Your task to perform on an android device: uninstall "Facebook Lite" Image 0: 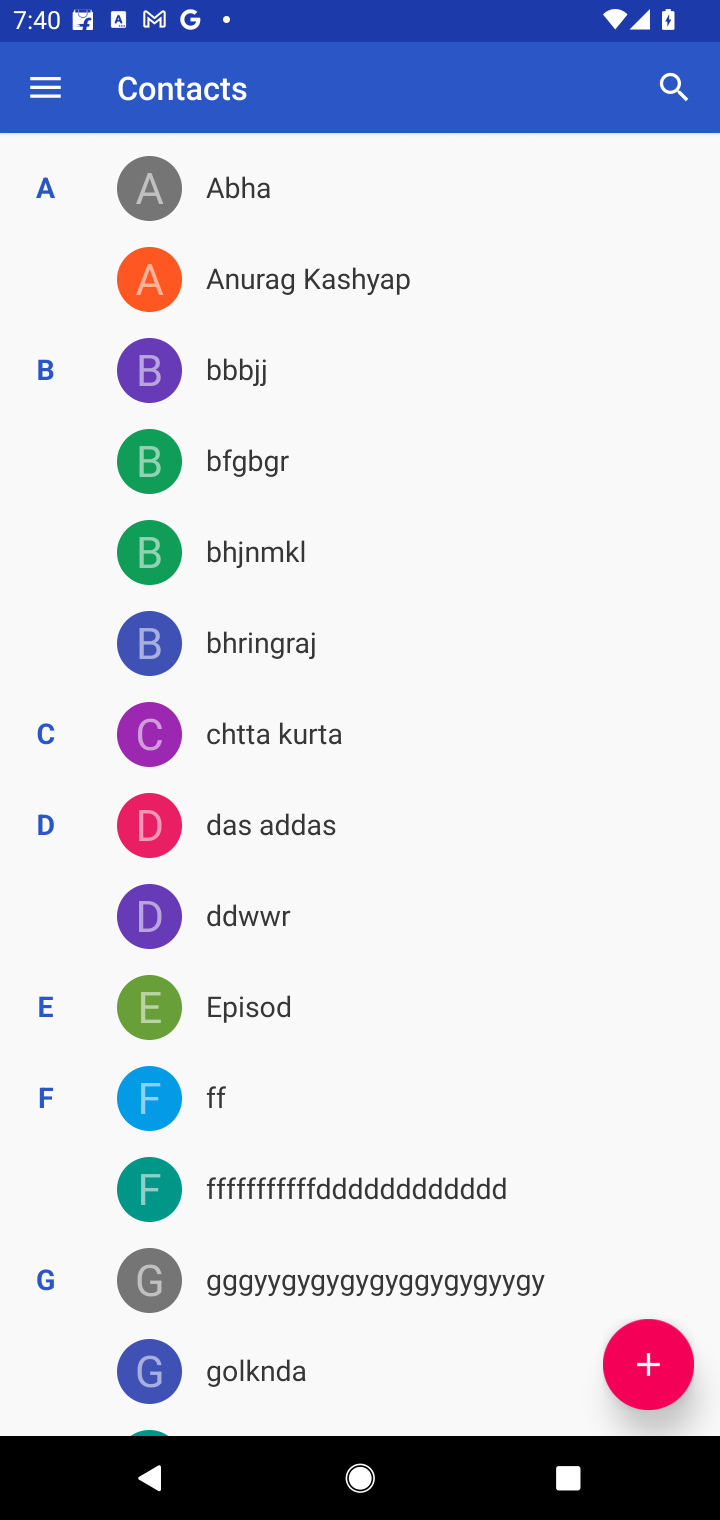
Step 0: press home button
Your task to perform on an android device: uninstall "Facebook Lite" Image 1: 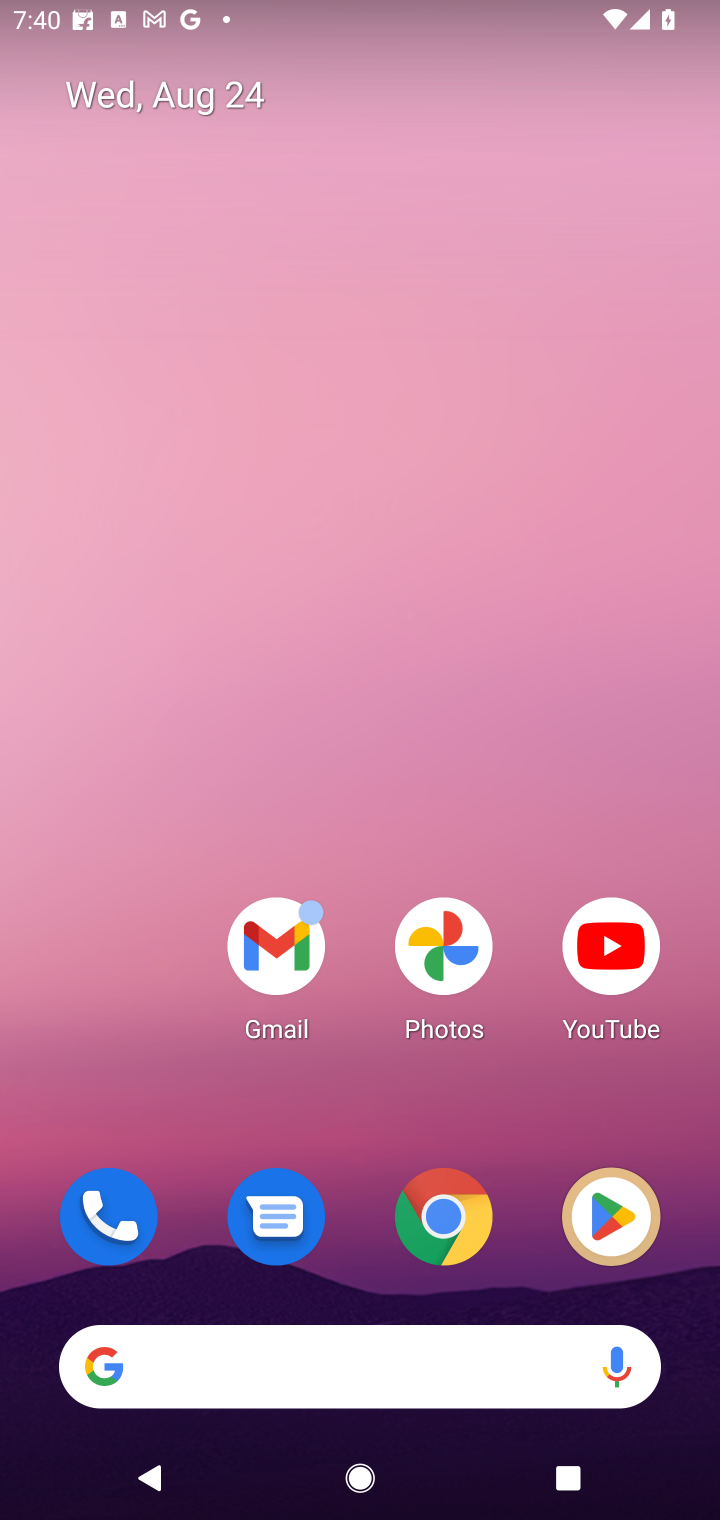
Step 1: click (542, 1232)
Your task to perform on an android device: uninstall "Facebook Lite" Image 2: 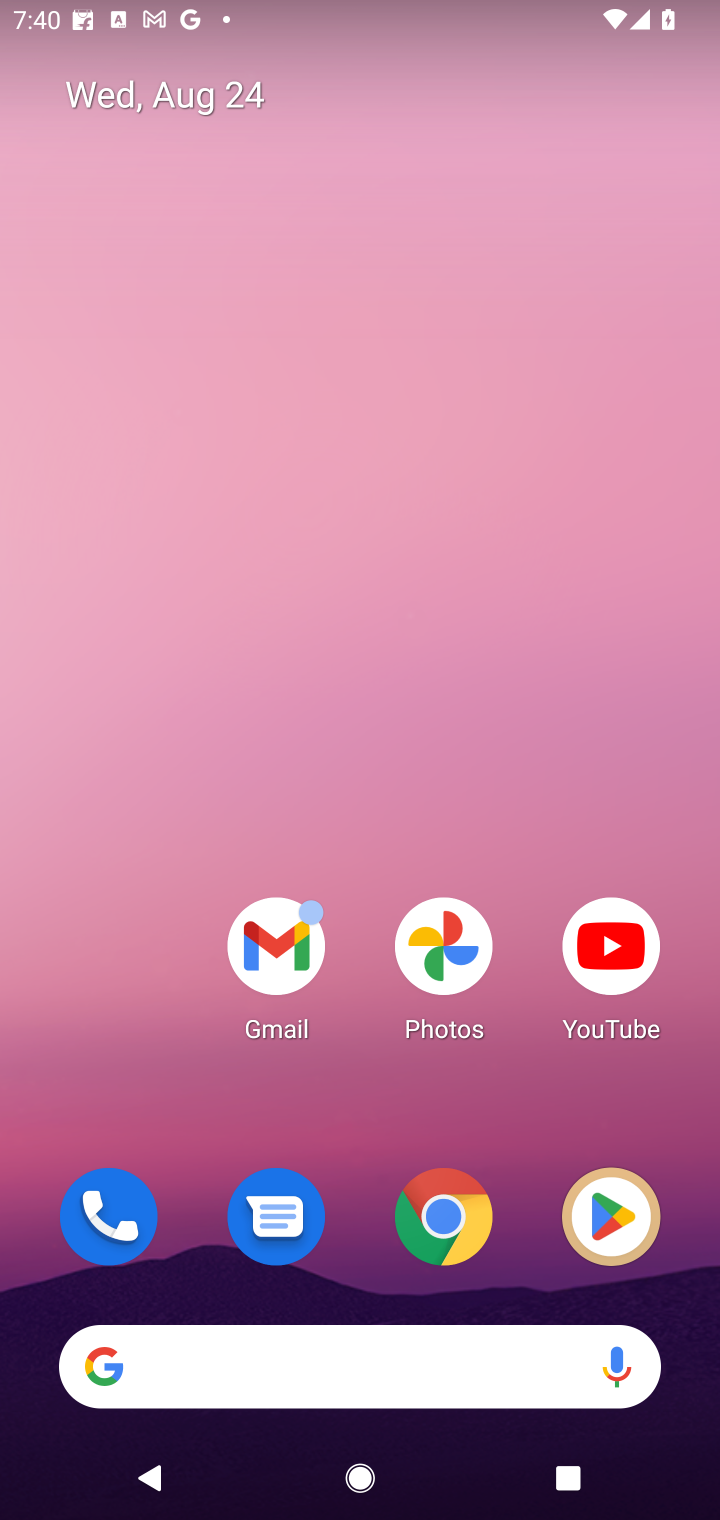
Step 2: click (608, 1184)
Your task to perform on an android device: uninstall "Facebook Lite" Image 3: 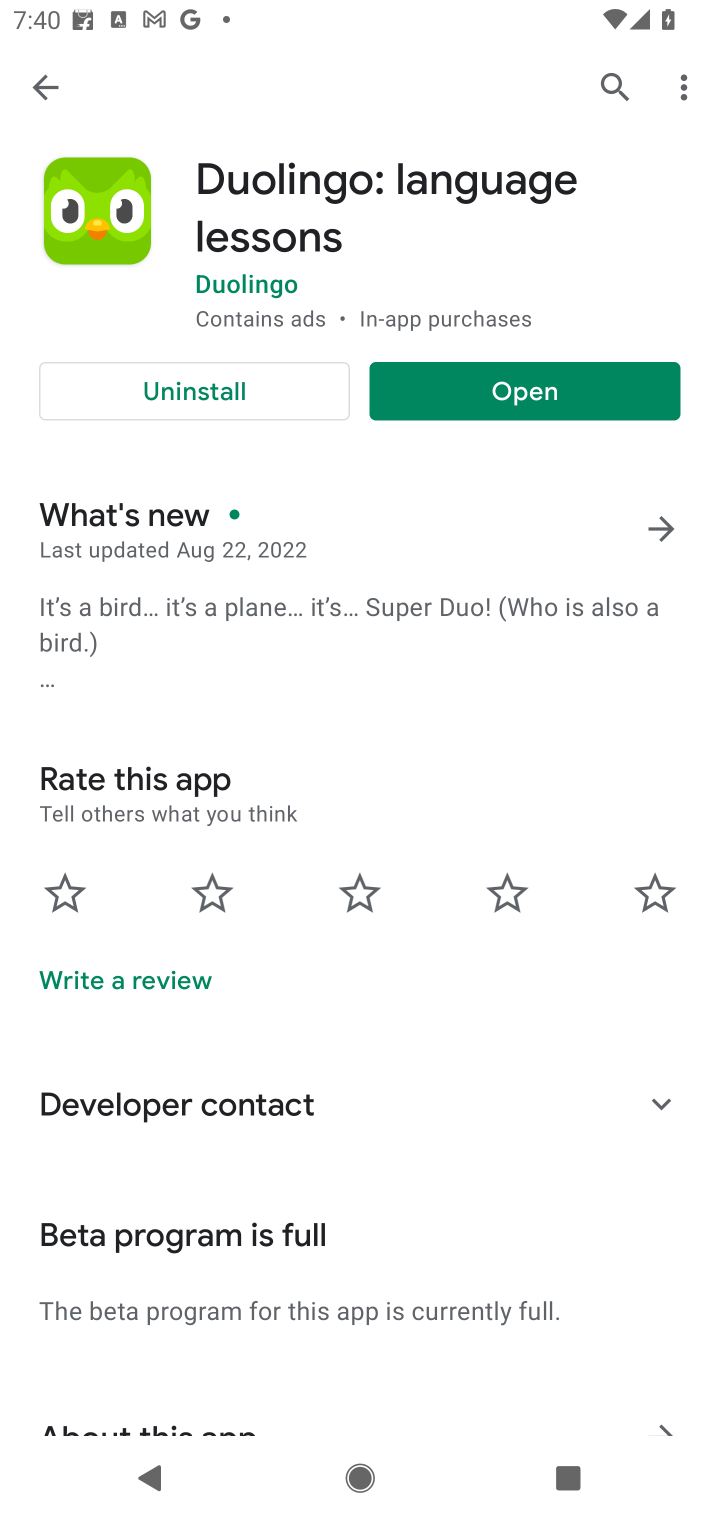
Step 3: click (612, 86)
Your task to perform on an android device: uninstall "Facebook Lite" Image 4: 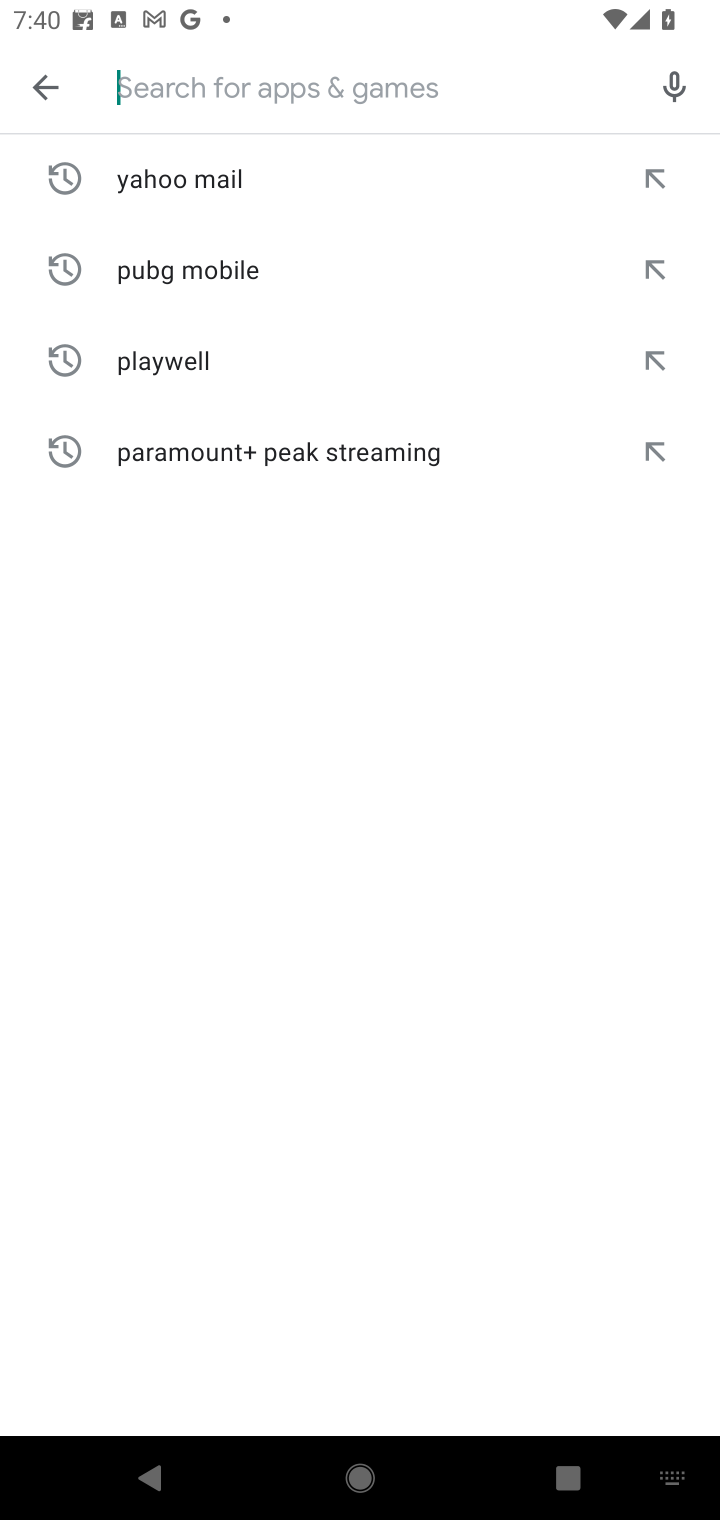
Step 4: type "Facebook Lite"
Your task to perform on an android device: uninstall "Facebook Lite" Image 5: 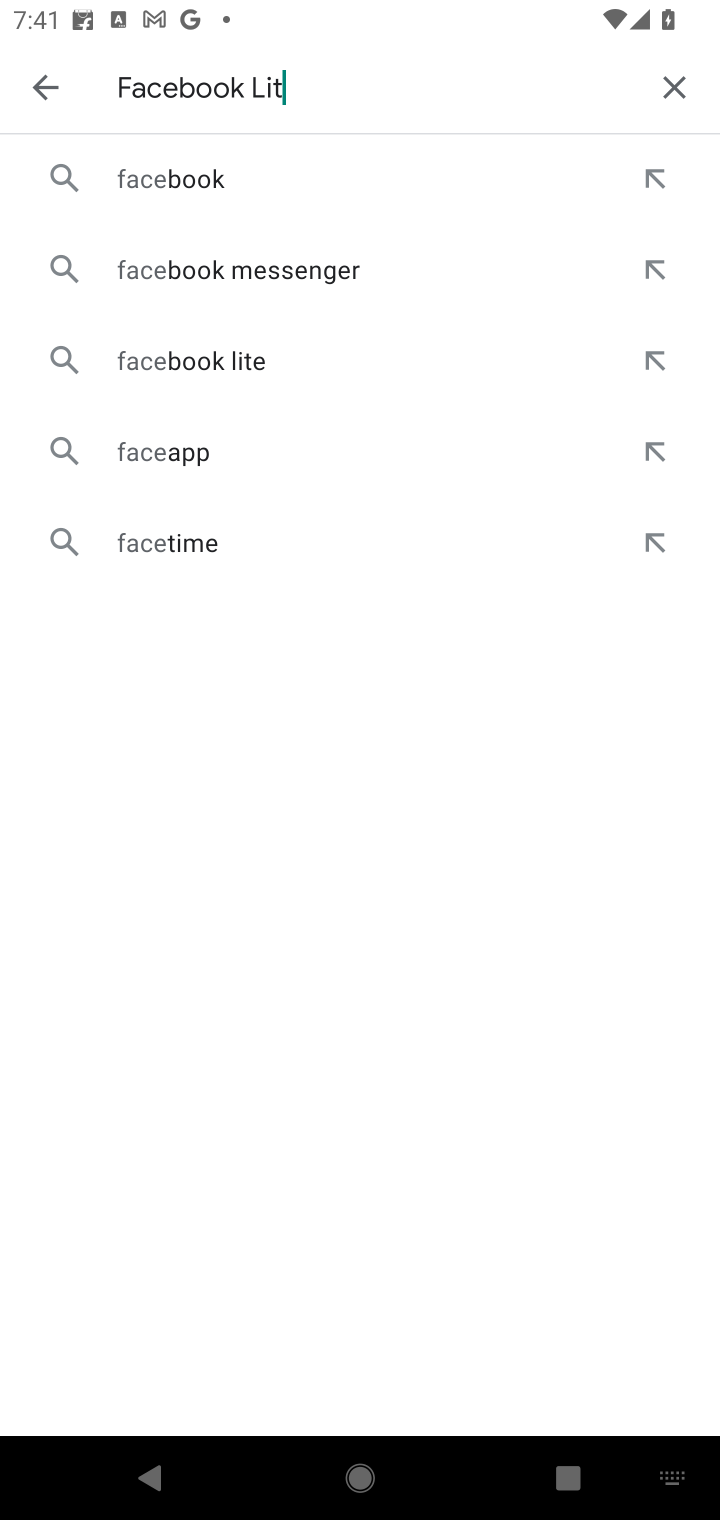
Step 5: type ""
Your task to perform on an android device: uninstall "Facebook Lite" Image 6: 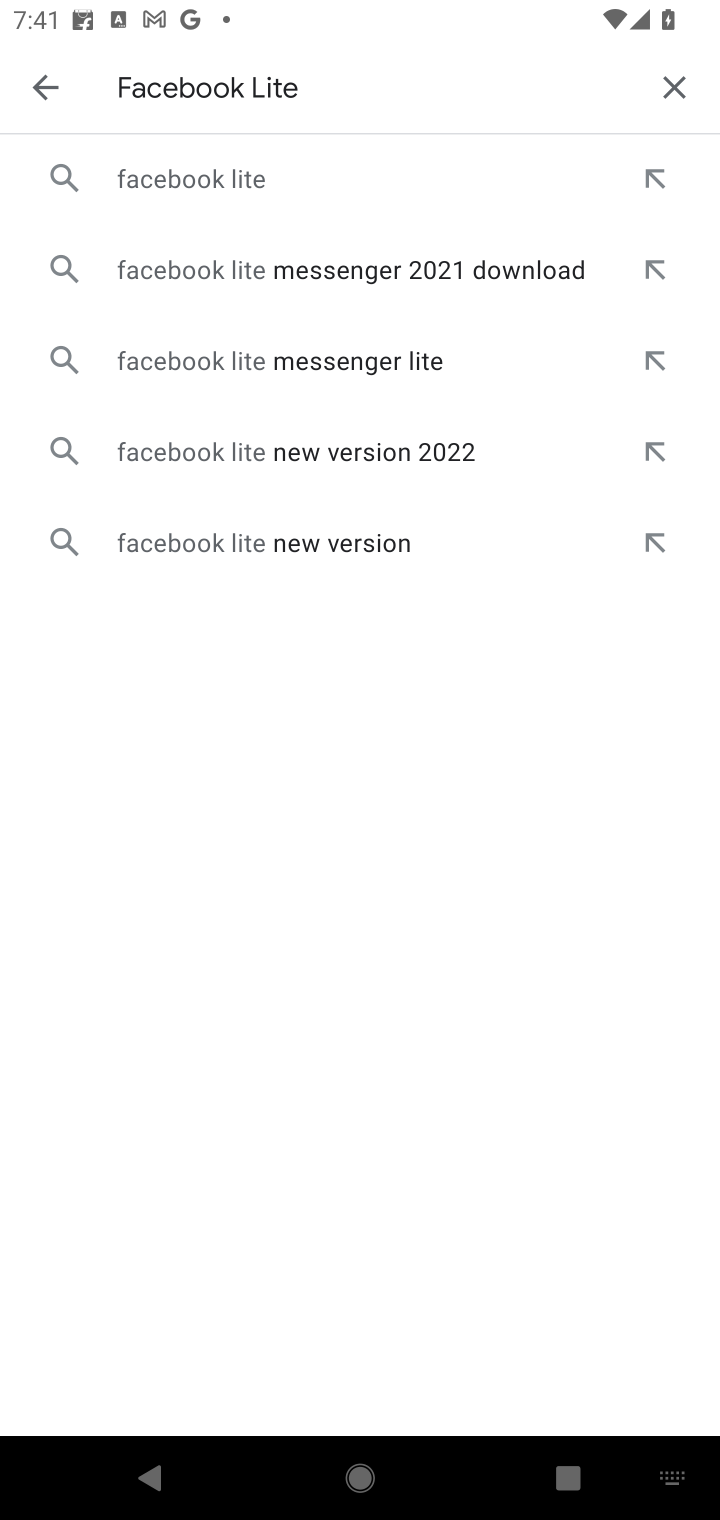
Step 6: click (247, 181)
Your task to perform on an android device: uninstall "Facebook Lite" Image 7: 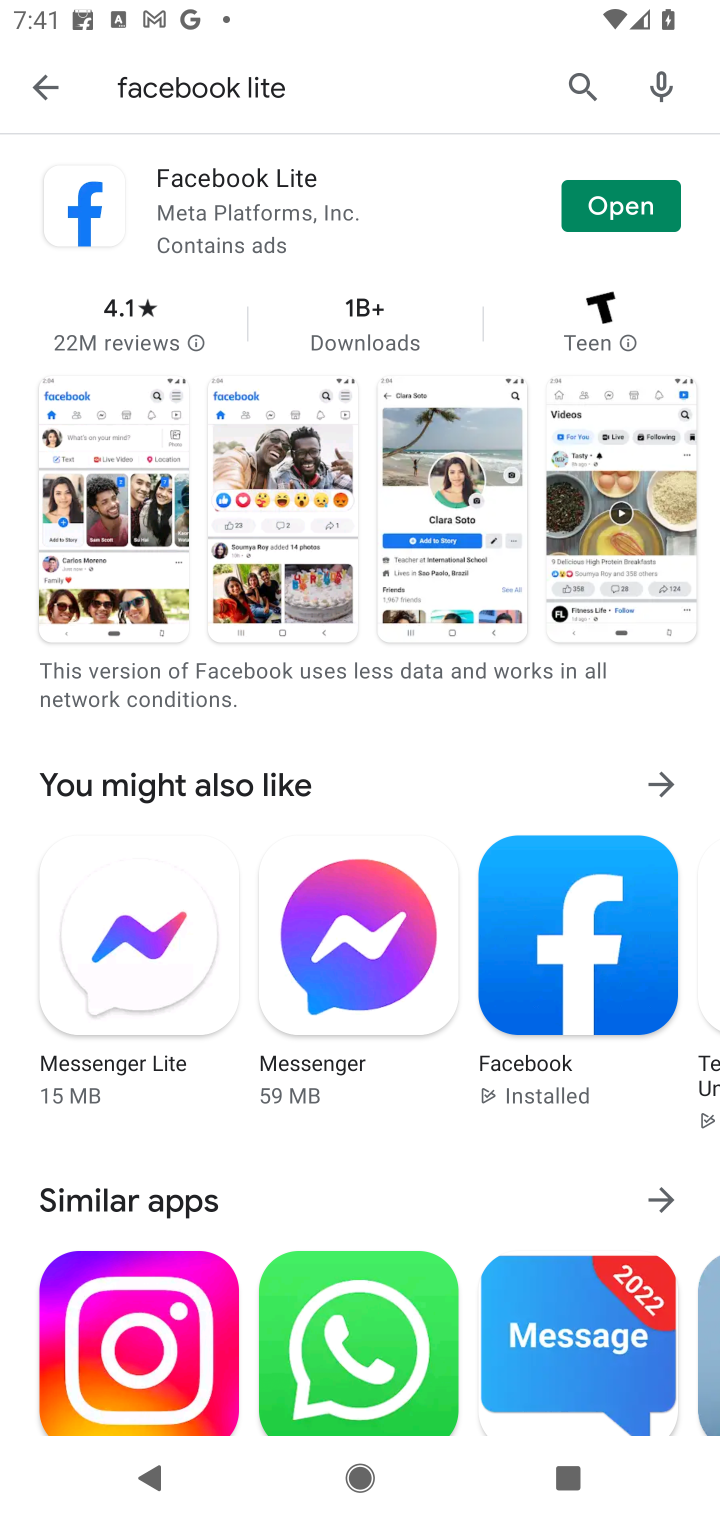
Step 7: click (340, 217)
Your task to perform on an android device: uninstall "Facebook Lite" Image 8: 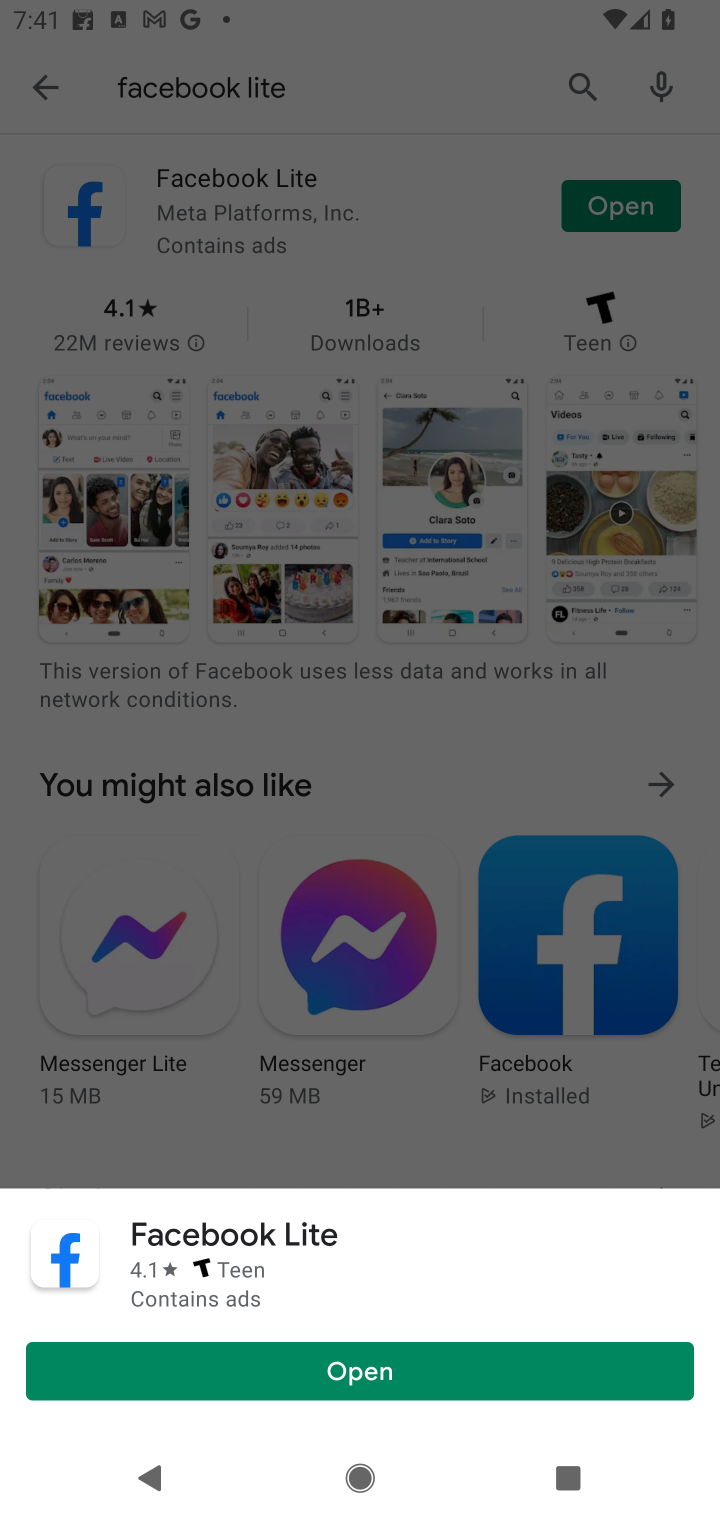
Step 8: click (242, 177)
Your task to perform on an android device: uninstall "Facebook Lite" Image 9: 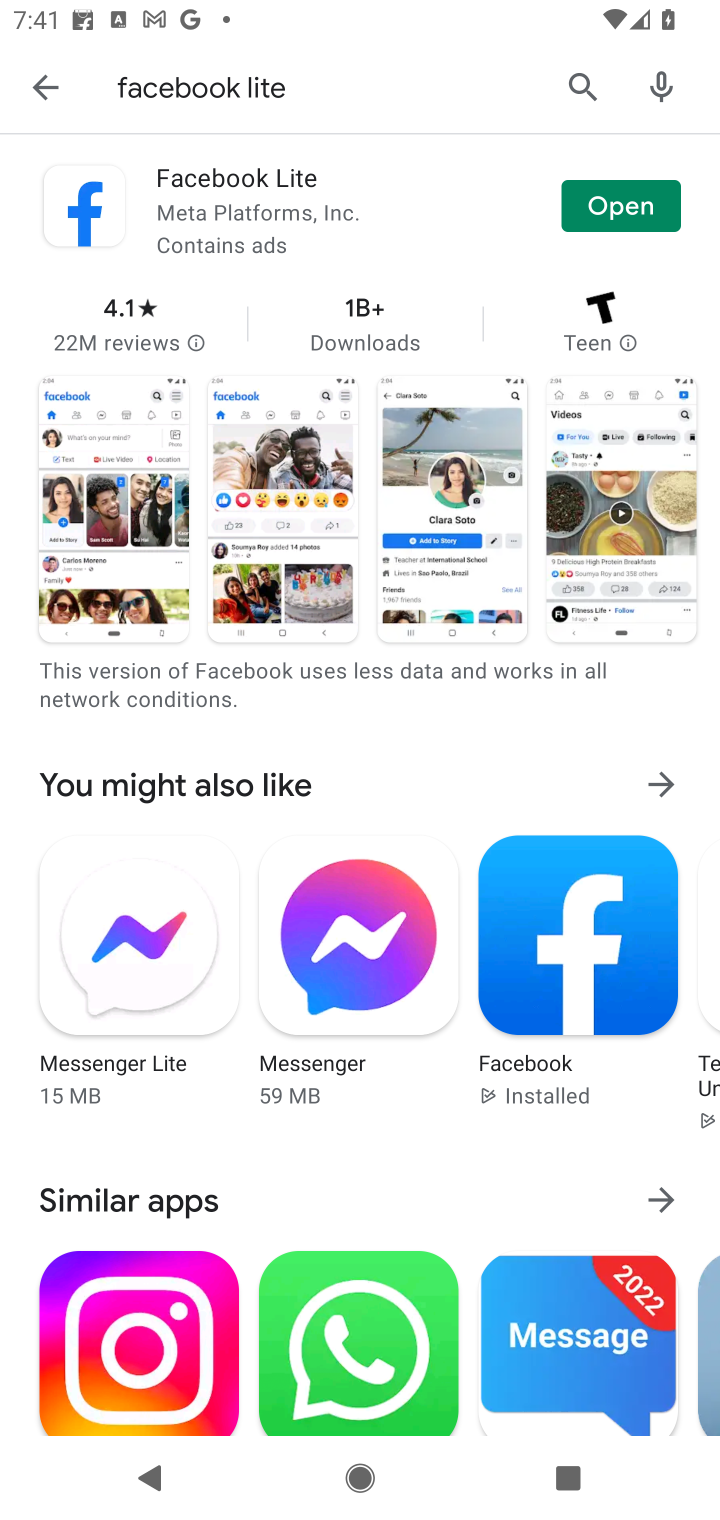
Step 9: click (216, 188)
Your task to perform on an android device: uninstall "Facebook Lite" Image 10: 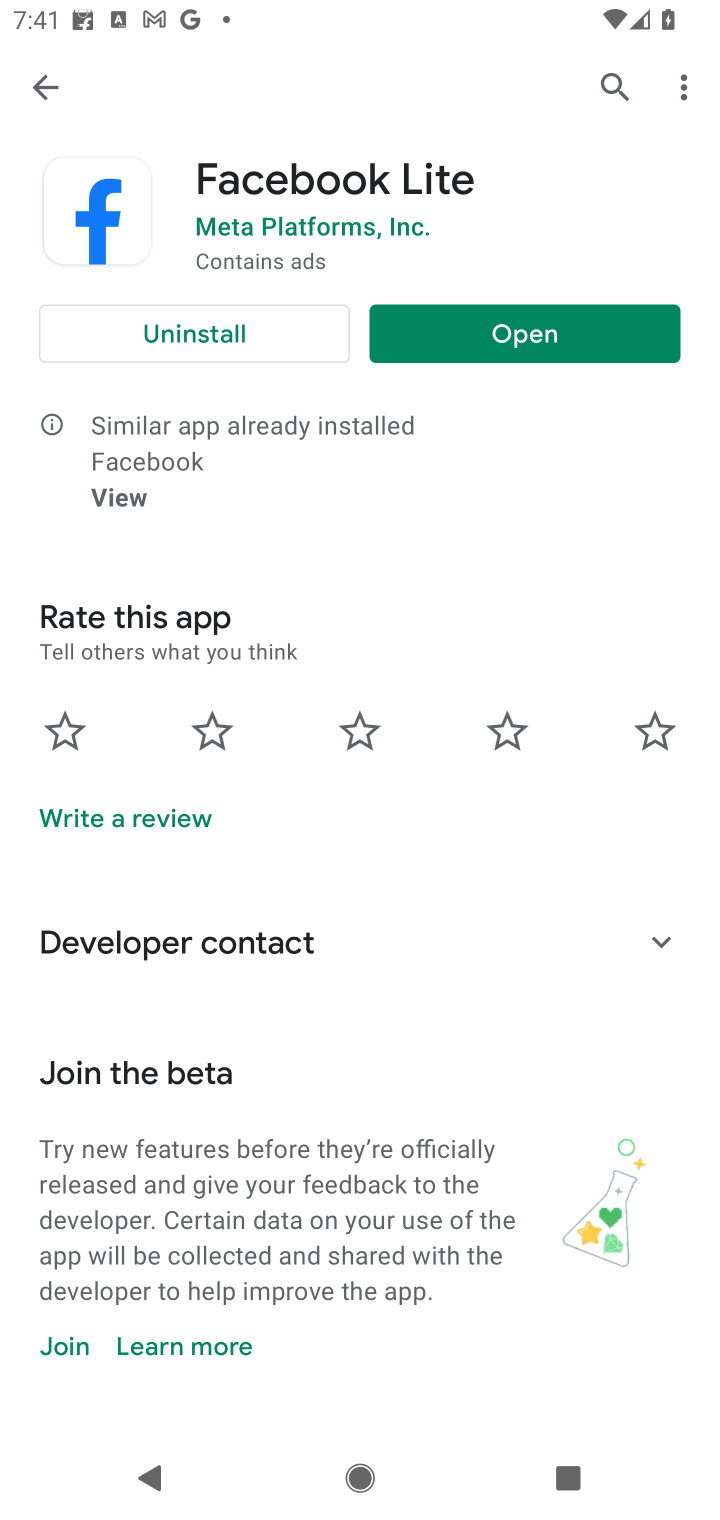
Step 10: click (227, 327)
Your task to perform on an android device: uninstall "Facebook Lite" Image 11: 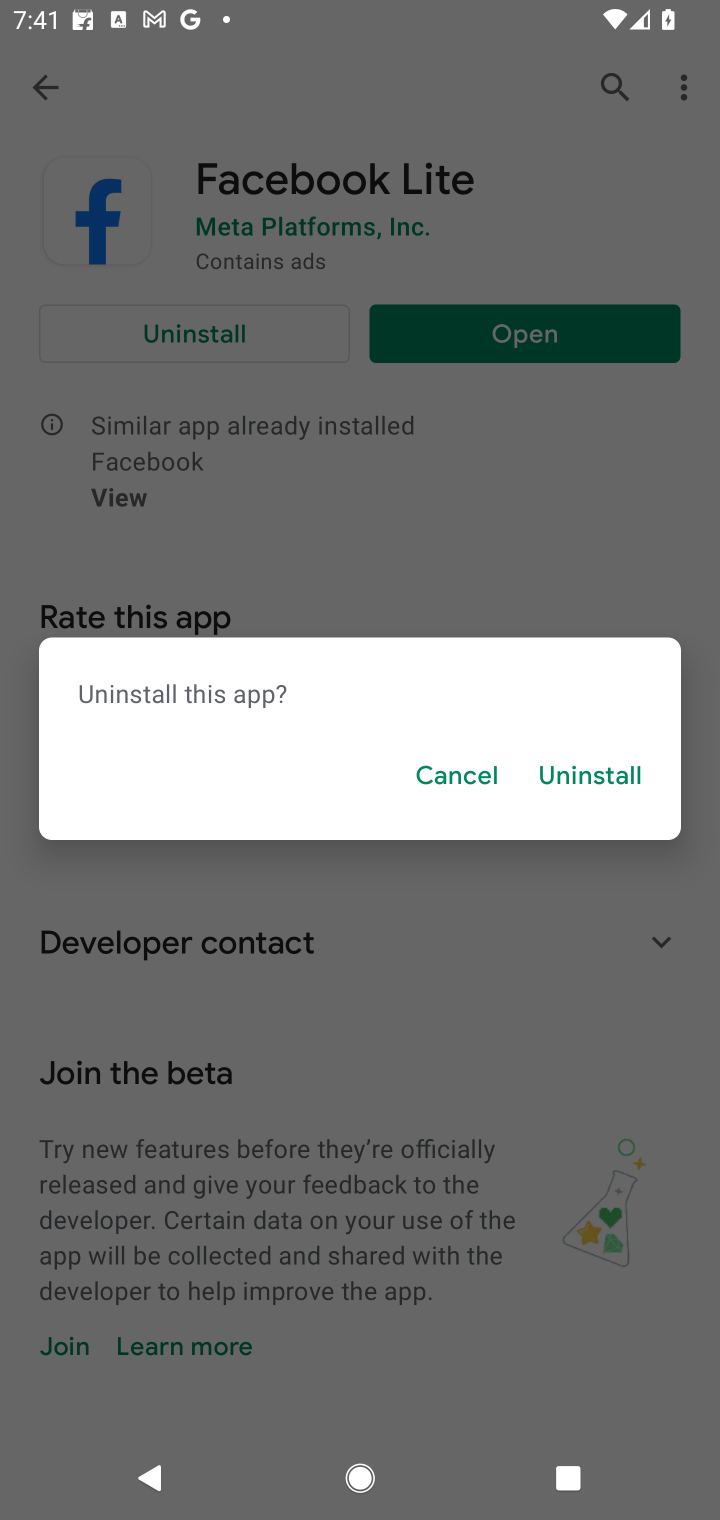
Step 11: click (590, 761)
Your task to perform on an android device: uninstall "Facebook Lite" Image 12: 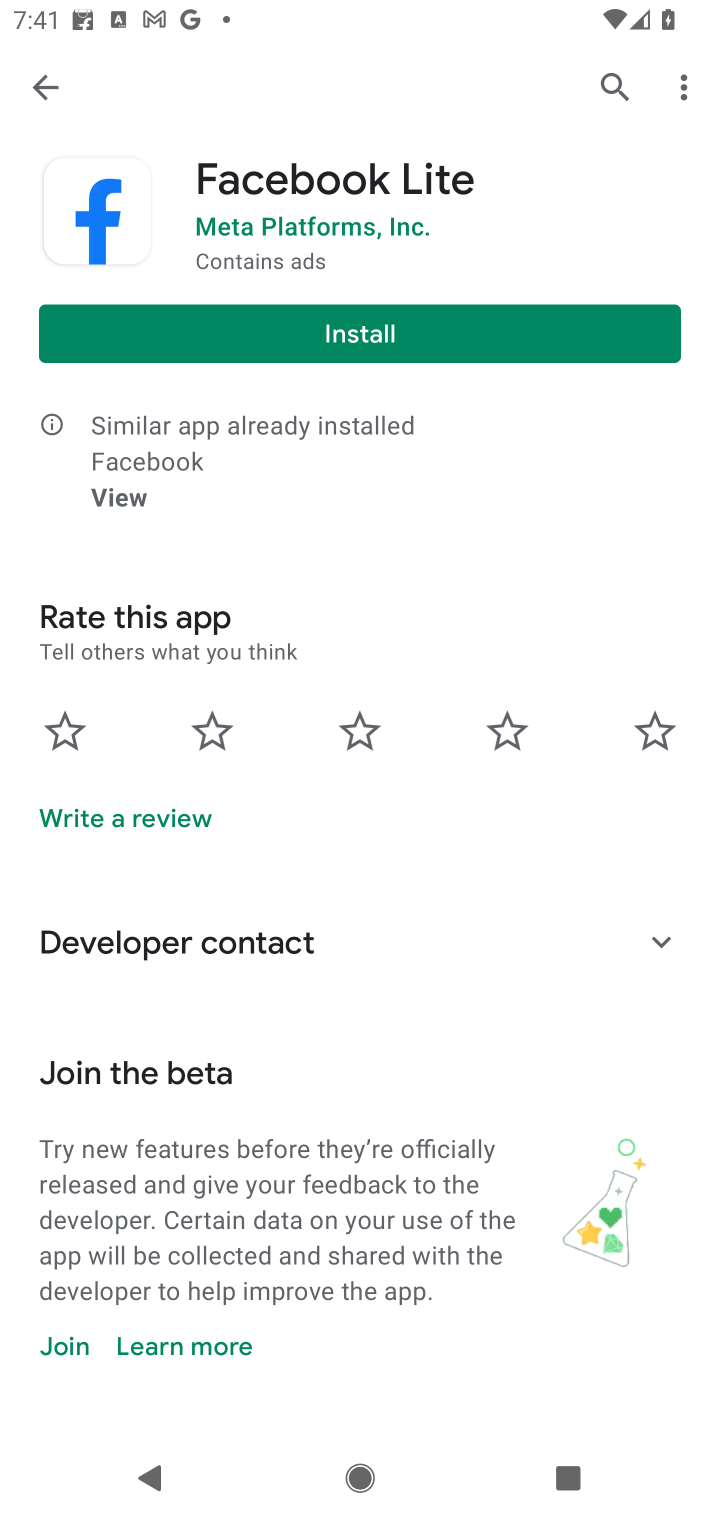
Step 12: task complete